Your task to perform on an android device: toggle pop-ups in chrome Image 0: 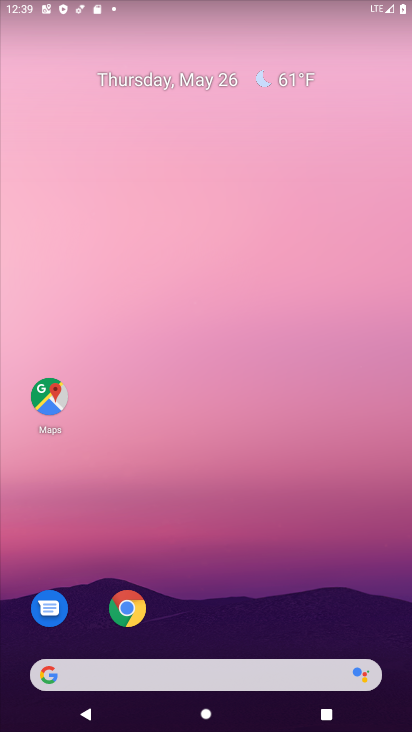
Step 0: click (126, 610)
Your task to perform on an android device: toggle pop-ups in chrome Image 1: 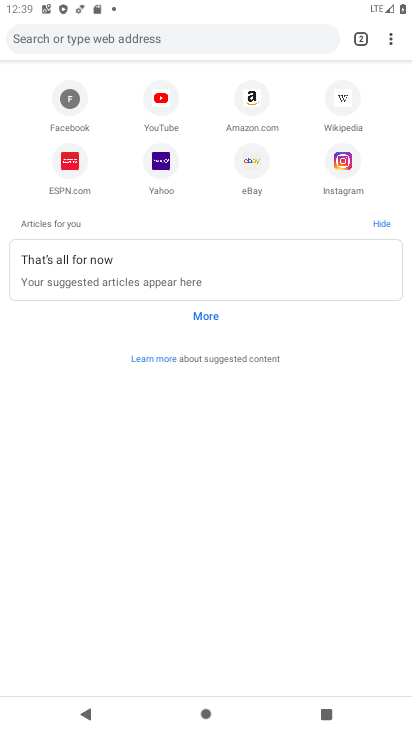
Step 1: click (387, 40)
Your task to perform on an android device: toggle pop-ups in chrome Image 2: 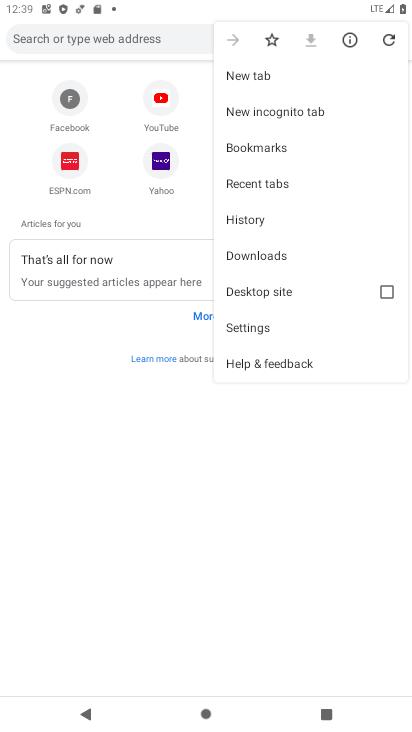
Step 2: click (270, 321)
Your task to perform on an android device: toggle pop-ups in chrome Image 3: 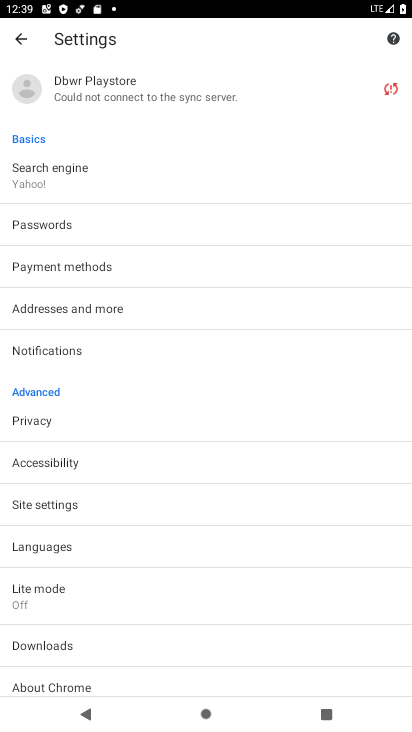
Step 3: click (50, 507)
Your task to perform on an android device: toggle pop-ups in chrome Image 4: 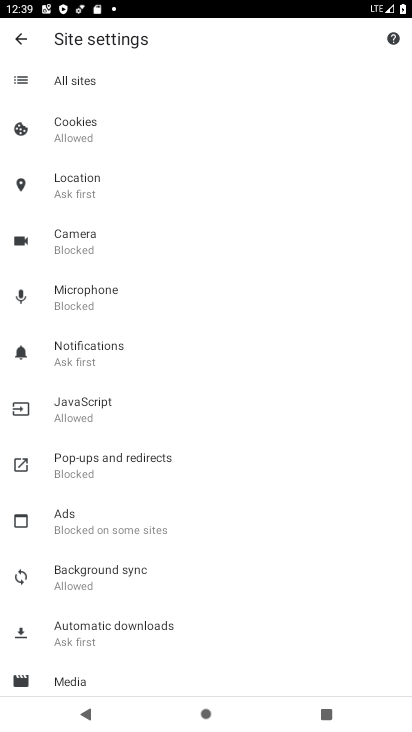
Step 4: click (88, 460)
Your task to perform on an android device: toggle pop-ups in chrome Image 5: 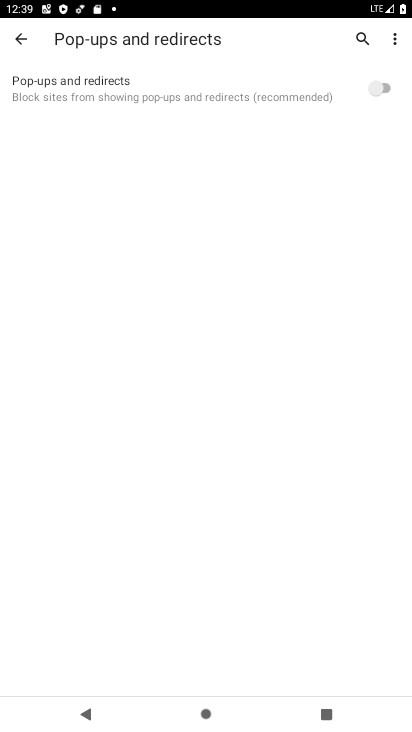
Step 5: click (385, 85)
Your task to perform on an android device: toggle pop-ups in chrome Image 6: 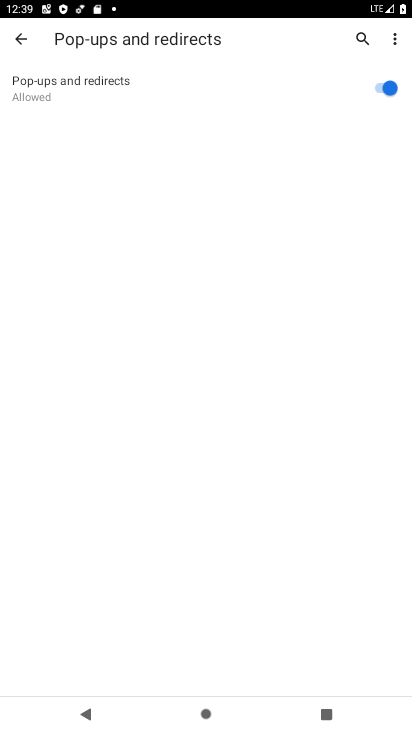
Step 6: task complete